Your task to perform on an android device: toggle improve location accuracy Image 0: 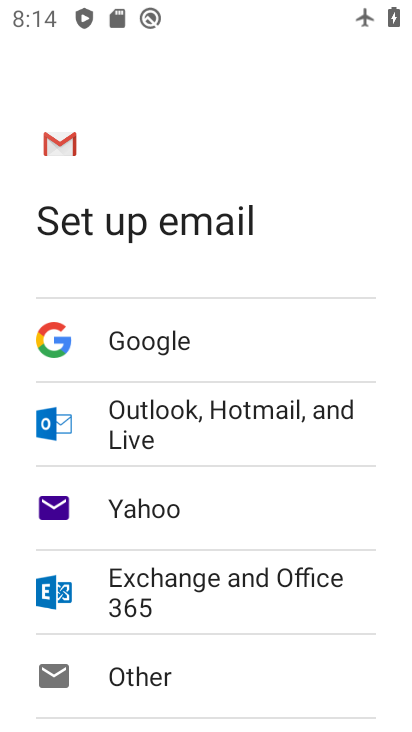
Step 0: press back button
Your task to perform on an android device: toggle improve location accuracy Image 1: 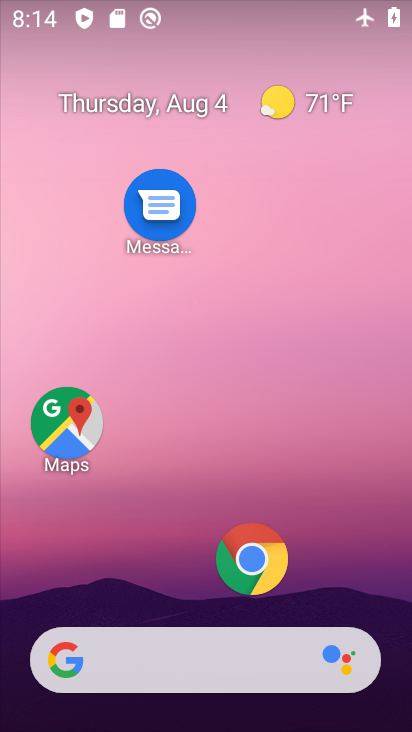
Step 1: drag from (173, 598) to (130, 100)
Your task to perform on an android device: toggle improve location accuracy Image 2: 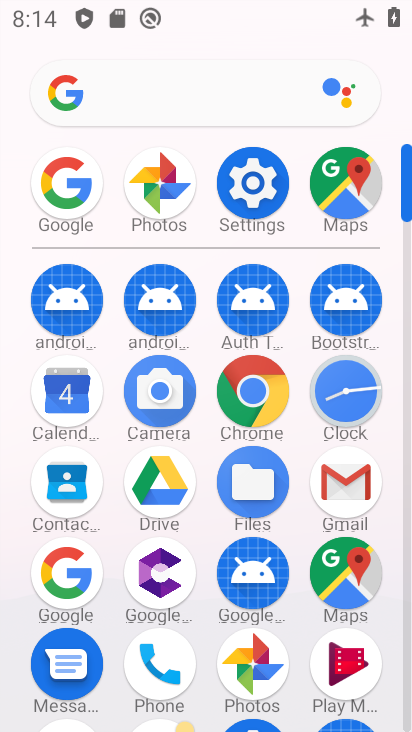
Step 2: click (253, 186)
Your task to perform on an android device: toggle improve location accuracy Image 3: 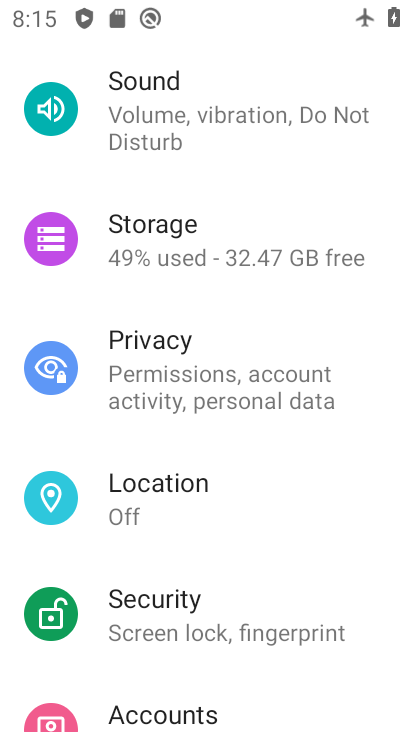
Step 3: click (132, 493)
Your task to perform on an android device: toggle improve location accuracy Image 4: 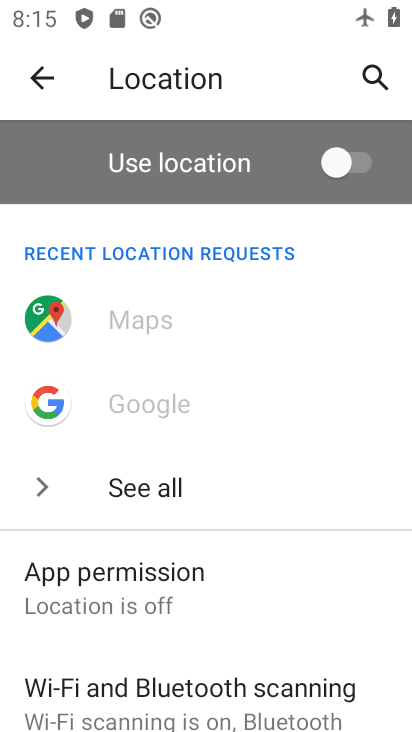
Step 4: drag from (181, 617) to (165, 189)
Your task to perform on an android device: toggle improve location accuracy Image 5: 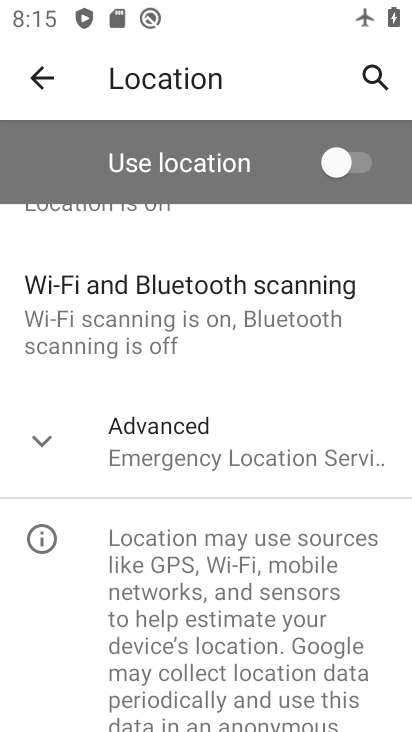
Step 5: click (181, 438)
Your task to perform on an android device: toggle improve location accuracy Image 6: 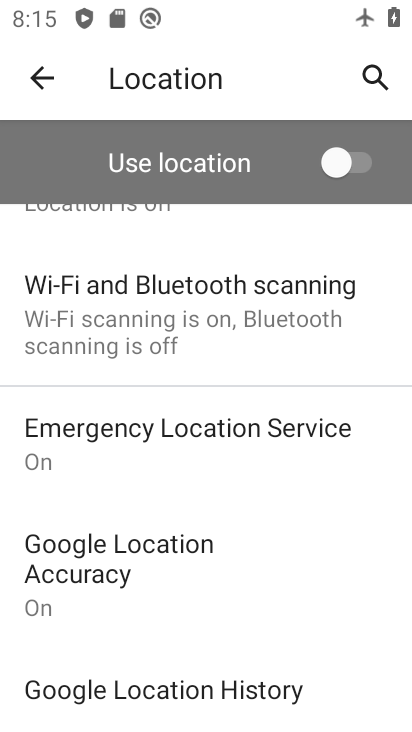
Step 6: click (159, 575)
Your task to perform on an android device: toggle improve location accuracy Image 7: 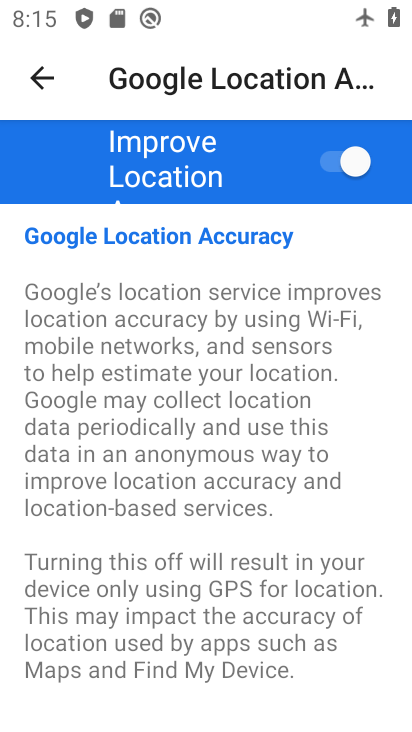
Step 7: click (353, 170)
Your task to perform on an android device: toggle improve location accuracy Image 8: 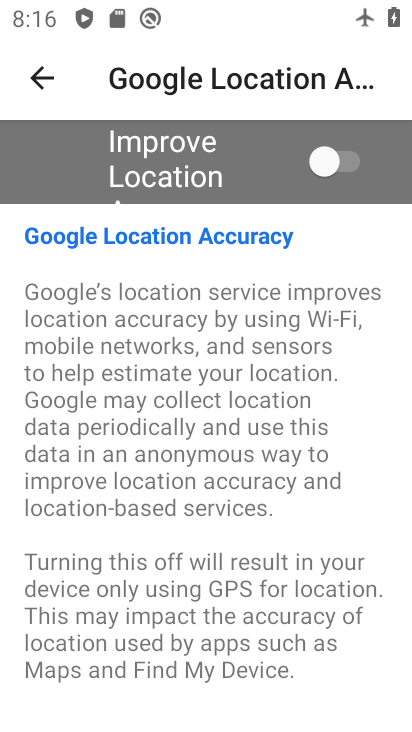
Step 8: task complete